Your task to perform on an android device: read, delete, or share a saved page in the chrome app Image 0: 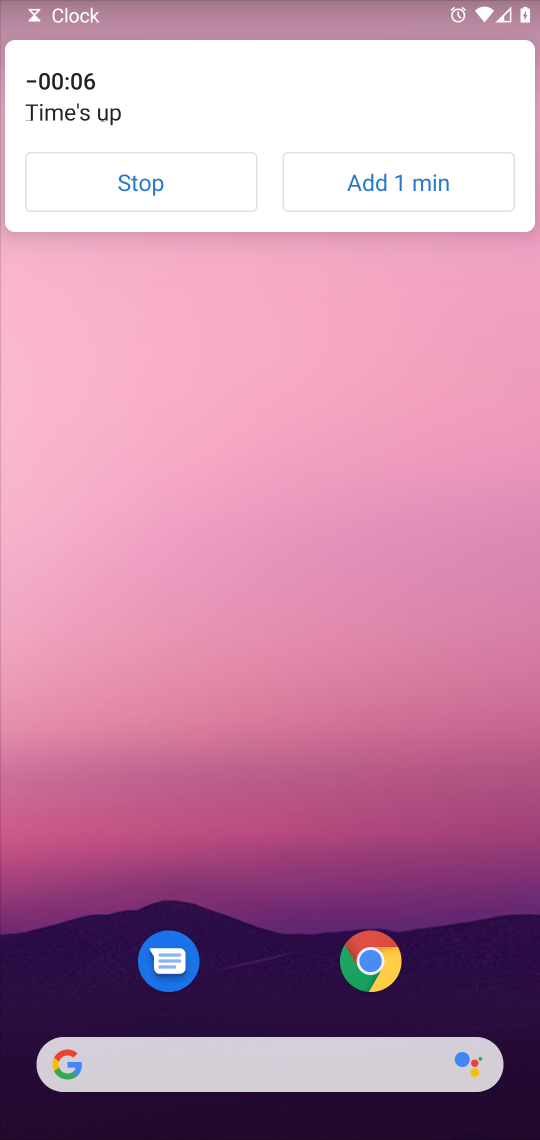
Step 0: click (163, 187)
Your task to perform on an android device: read, delete, or share a saved page in the chrome app Image 1: 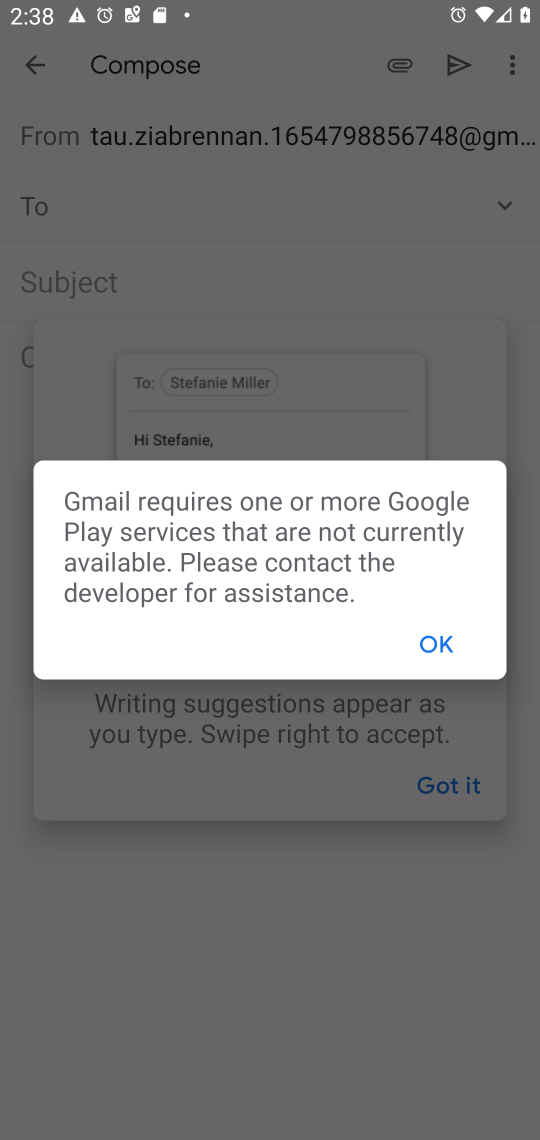
Step 1: press home button
Your task to perform on an android device: read, delete, or share a saved page in the chrome app Image 2: 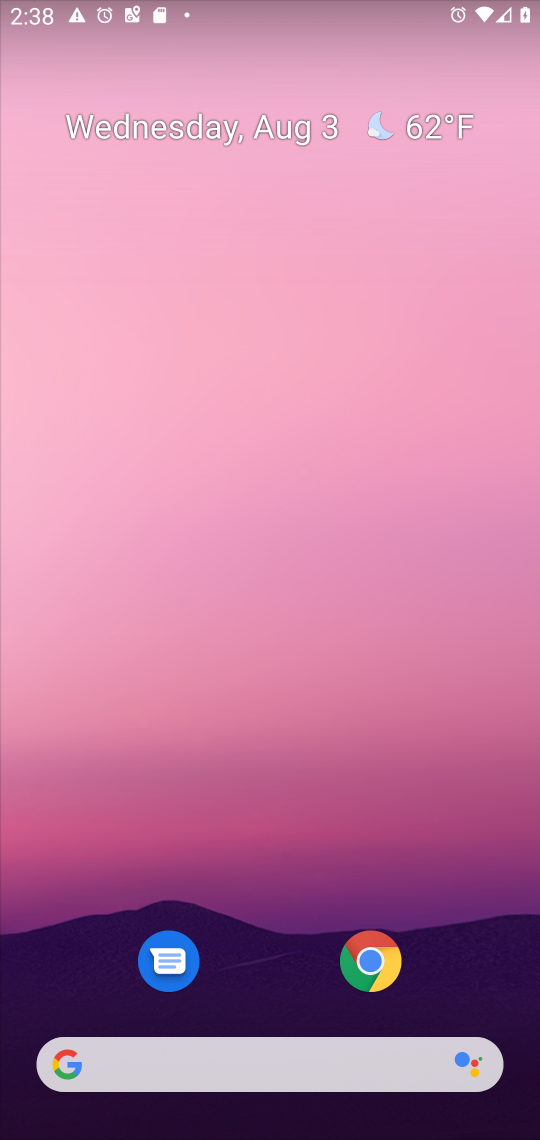
Step 2: click (365, 964)
Your task to perform on an android device: read, delete, or share a saved page in the chrome app Image 3: 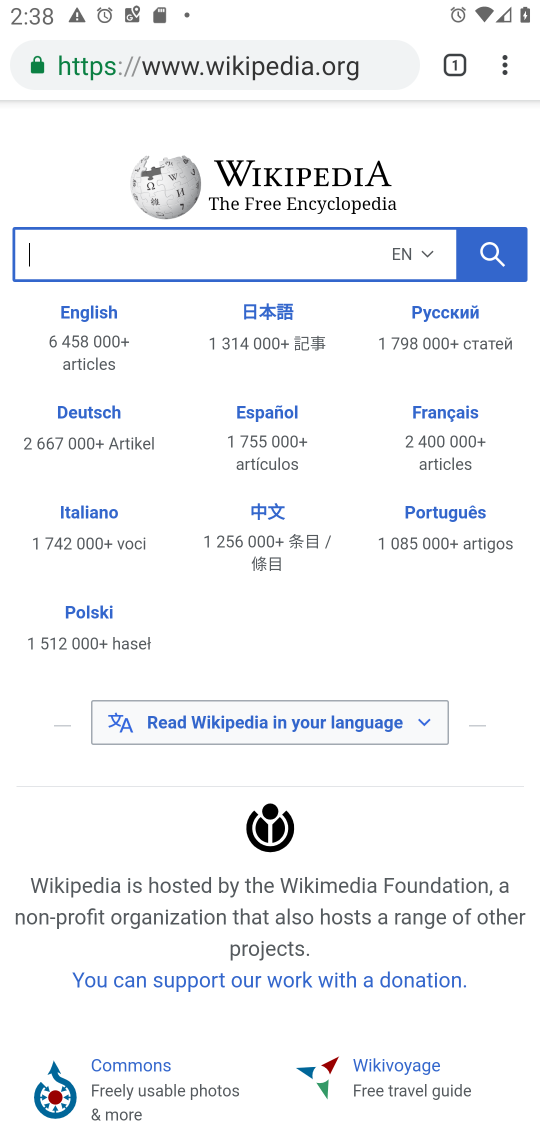
Step 3: drag from (495, 68) to (283, 429)
Your task to perform on an android device: read, delete, or share a saved page in the chrome app Image 4: 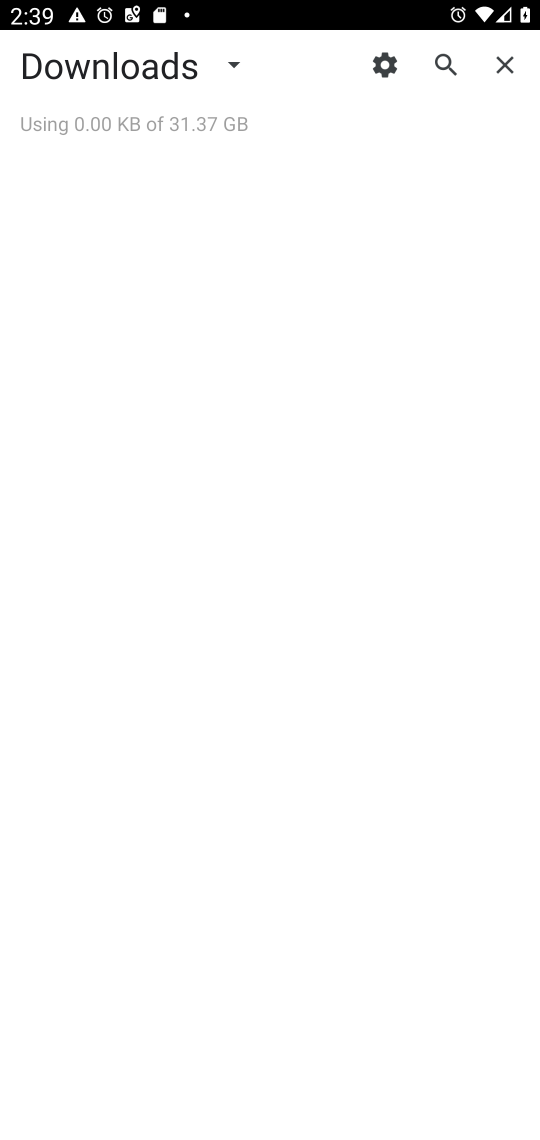
Step 4: click (234, 71)
Your task to perform on an android device: read, delete, or share a saved page in the chrome app Image 5: 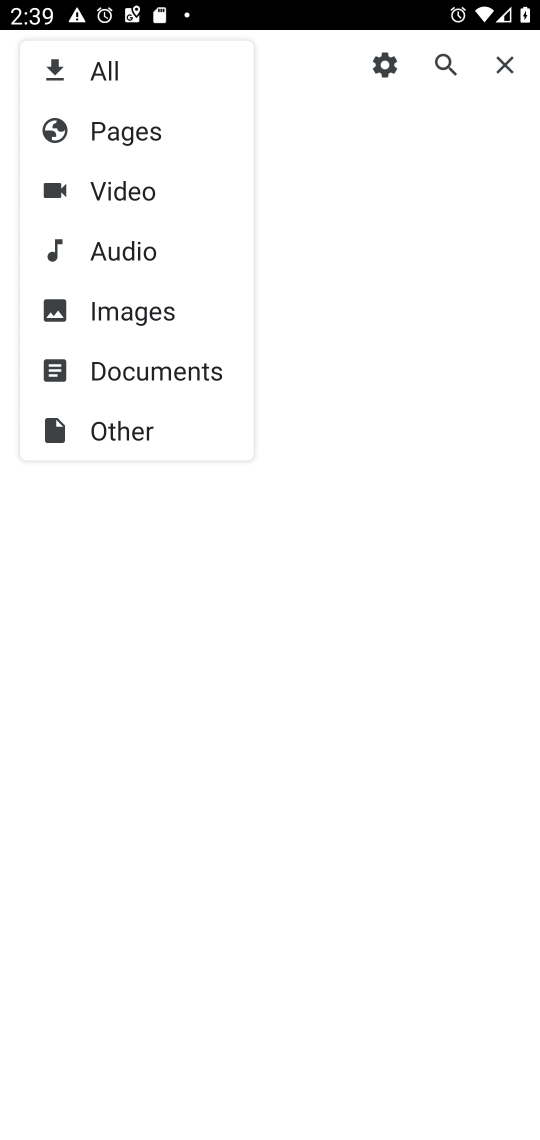
Step 5: click (163, 140)
Your task to perform on an android device: read, delete, or share a saved page in the chrome app Image 6: 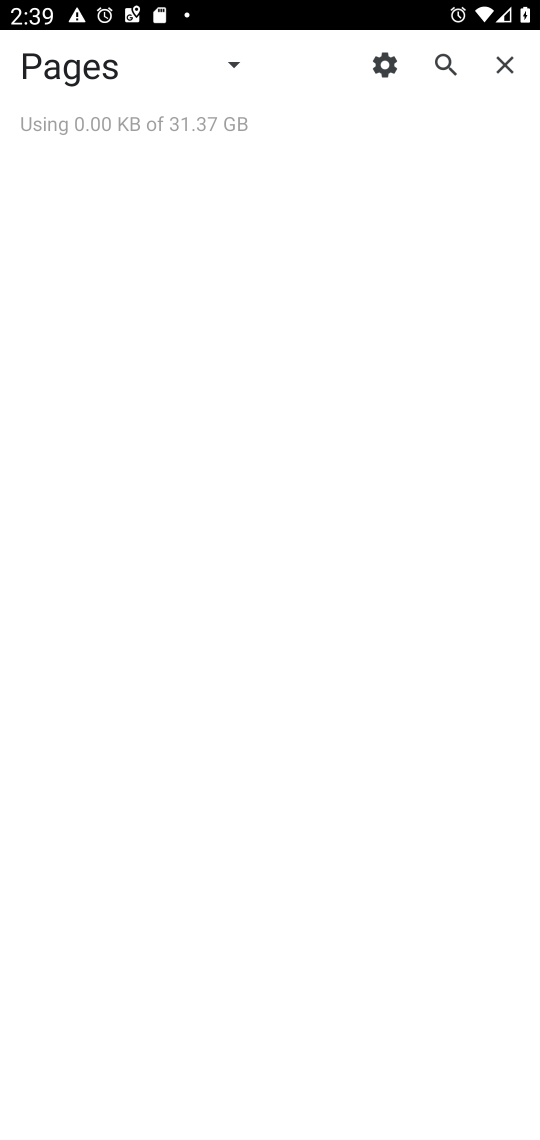
Step 6: task complete